Your task to perform on an android device: turn off wifi Image 0: 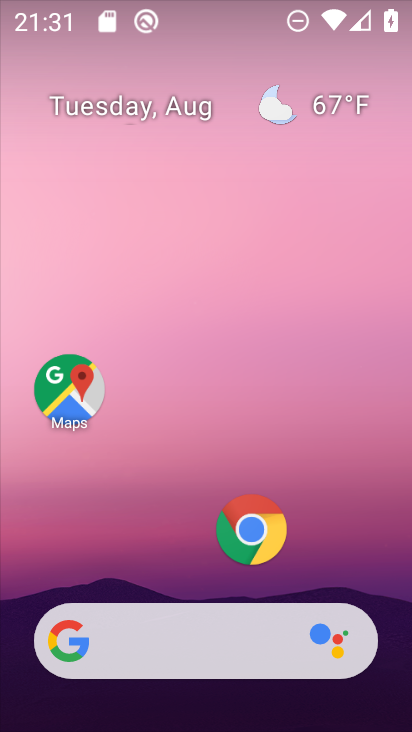
Step 0: drag from (152, 554) to (163, 10)
Your task to perform on an android device: turn off wifi Image 1: 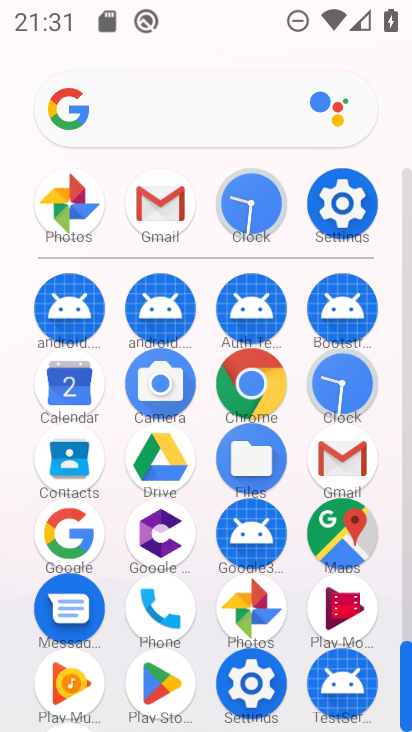
Step 1: click (343, 193)
Your task to perform on an android device: turn off wifi Image 2: 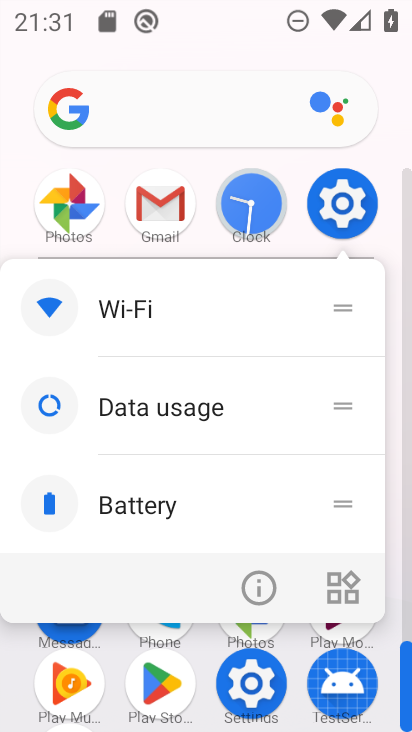
Step 2: click (250, 582)
Your task to perform on an android device: turn off wifi Image 3: 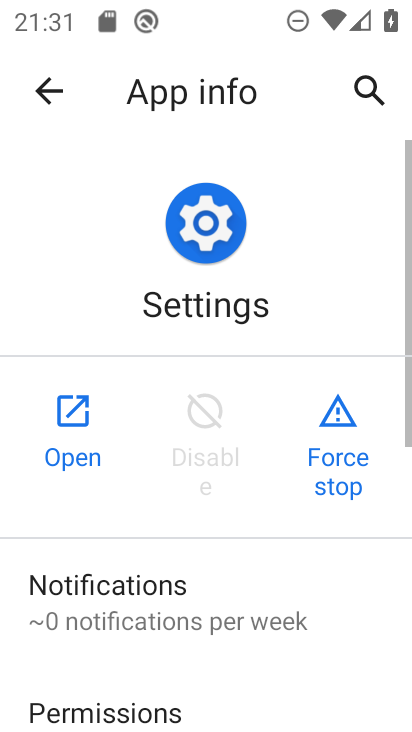
Step 3: click (81, 421)
Your task to perform on an android device: turn off wifi Image 4: 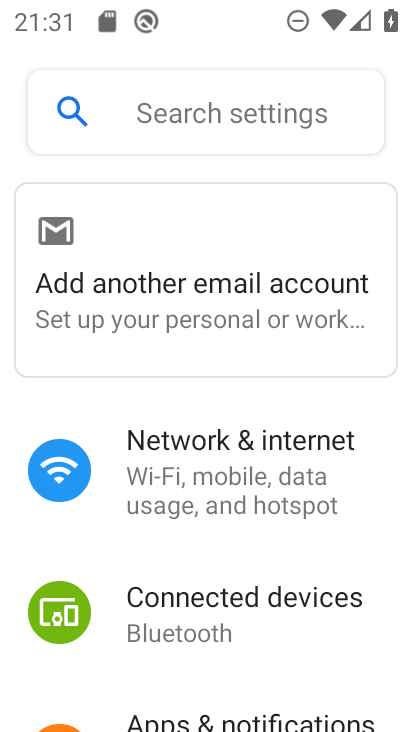
Step 4: click (213, 476)
Your task to perform on an android device: turn off wifi Image 5: 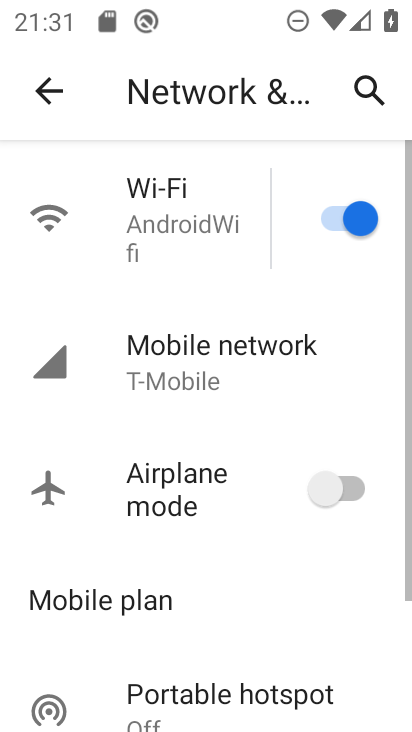
Step 5: click (192, 224)
Your task to perform on an android device: turn off wifi Image 6: 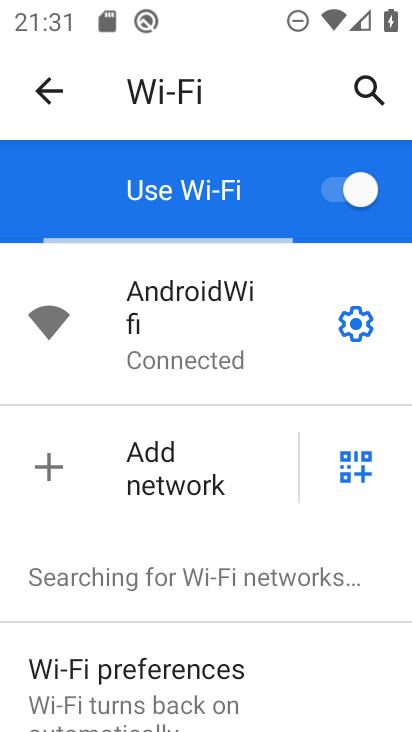
Step 6: click (353, 186)
Your task to perform on an android device: turn off wifi Image 7: 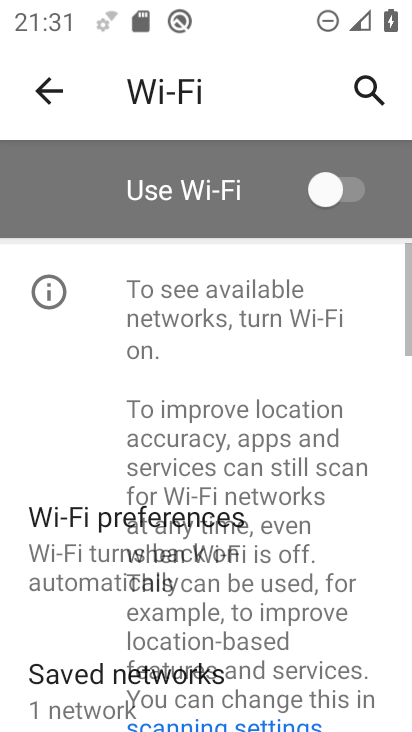
Step 7: task complete